Your task to perform on an android device: change text size in settings app Image 0: 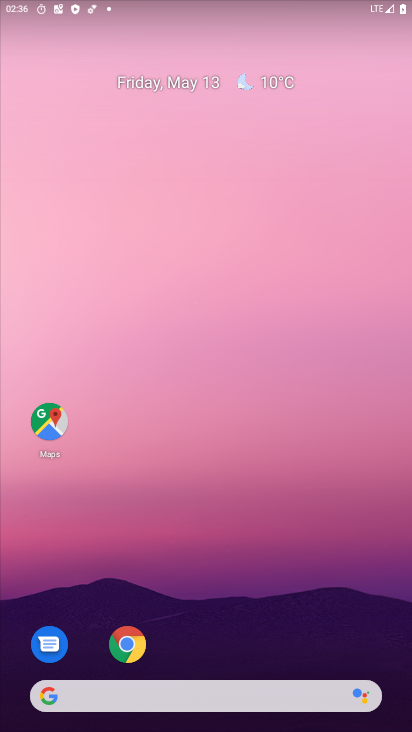
Step 0: drag from (236, 662) to (255, 0)
Your task to perform on an android device: change text size in settings app Image 1: 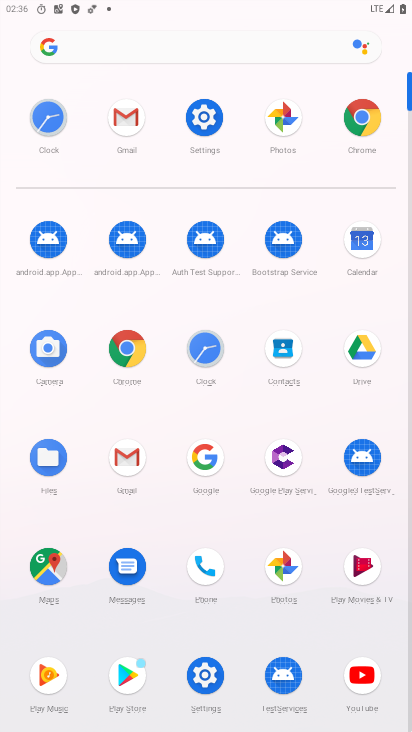
Step 1: click (204, 122)
Your task to perform on an android device: change text size in settings app Image 2: 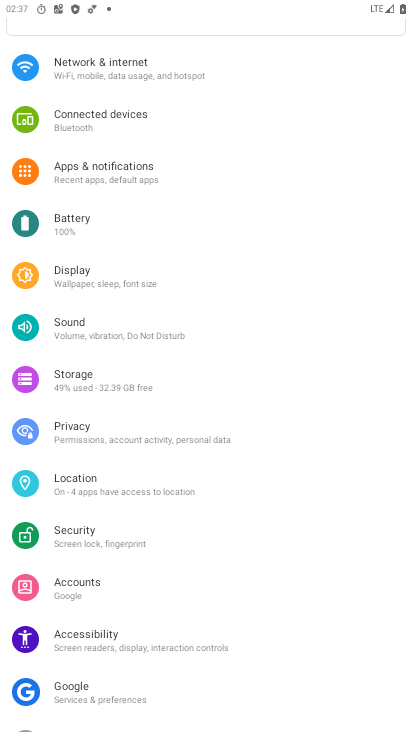
Step 2: click (95, 535)
Your task to perform on an android device: change text size in settings app Image 3: 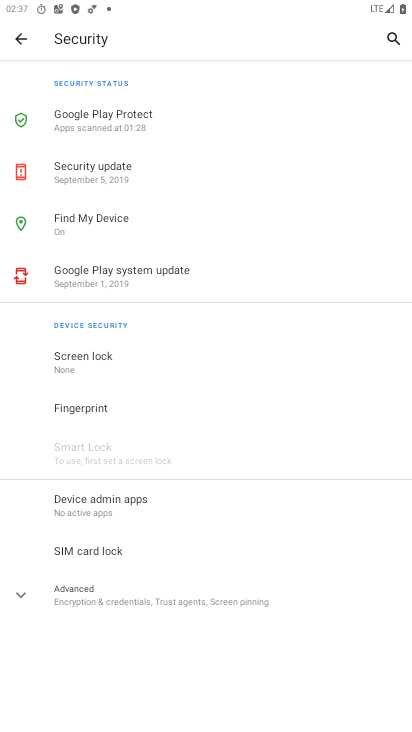
Step 3: drag from (184, 154) to (161, 450)
Your task to perform on an android device: change text size in settings app Image 4: 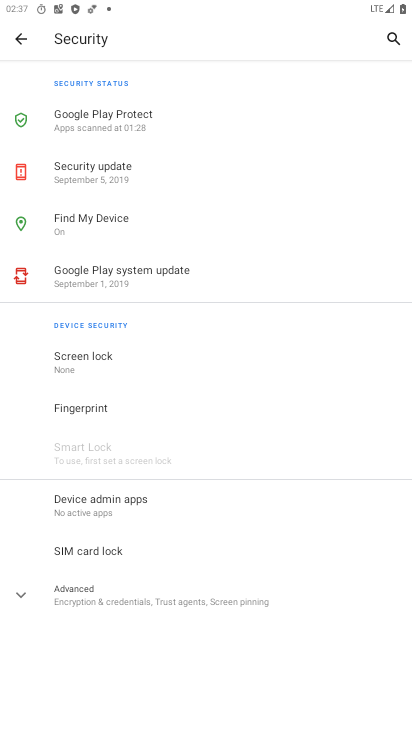
Step 4: press back button
Your task to perform on an android device: change text size in settings app Image 5: 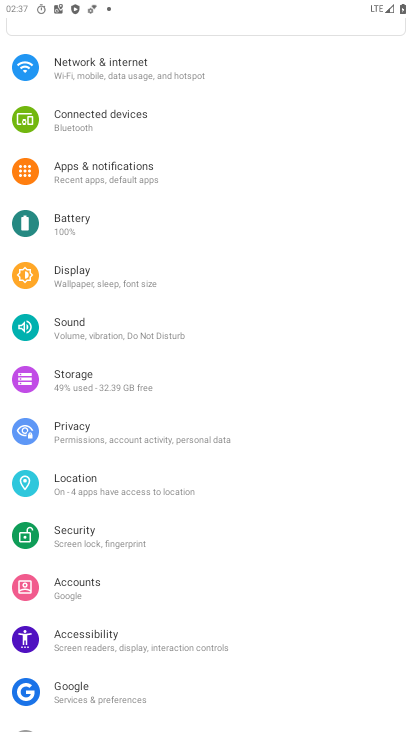
Step 5: drag from (226, 675) to (248, 381)
Your task to perform on an android device: change text size in settings app Image 6: 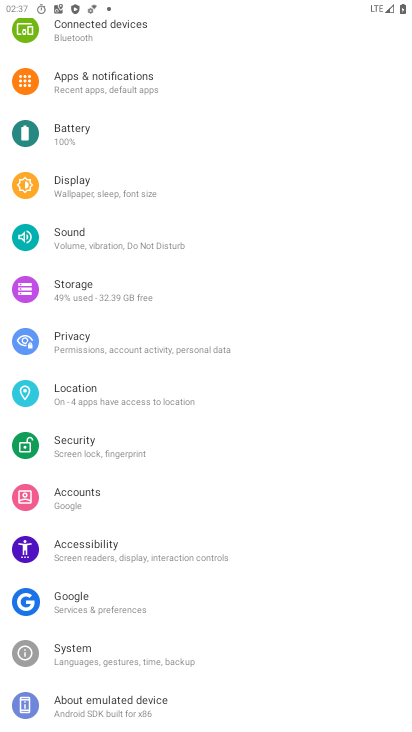
Step 6: click (128, 551)
Your task to perform on an android device: change text size in settings app Image 7: 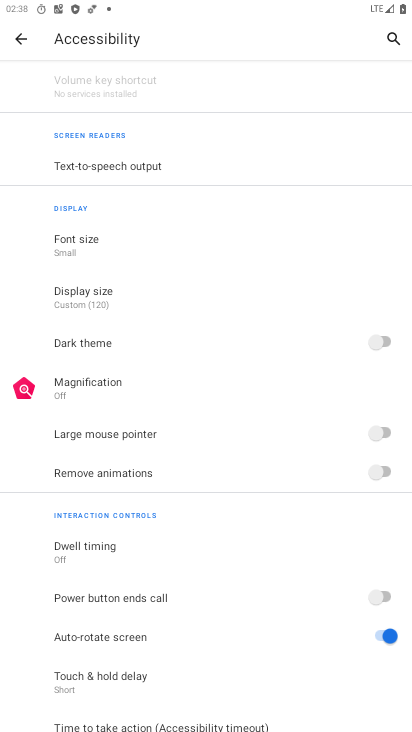
Step 7: click (78, 244)
Your task to perform on an android device: change text size in settings app Image 8: 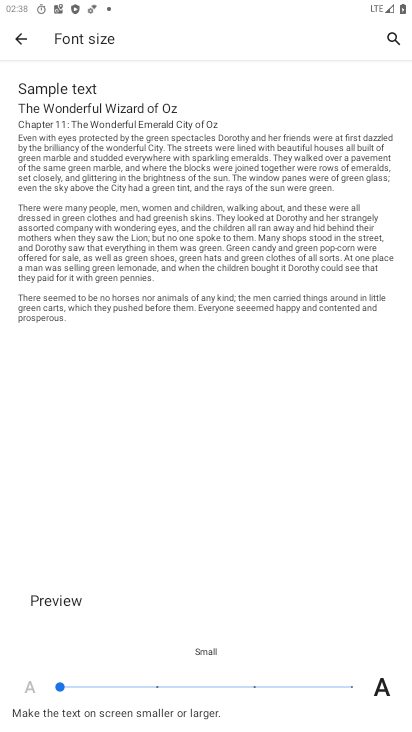
Step 8: click (118, 684)
Your task to perform on an android device: change text size in settings app Image 9: 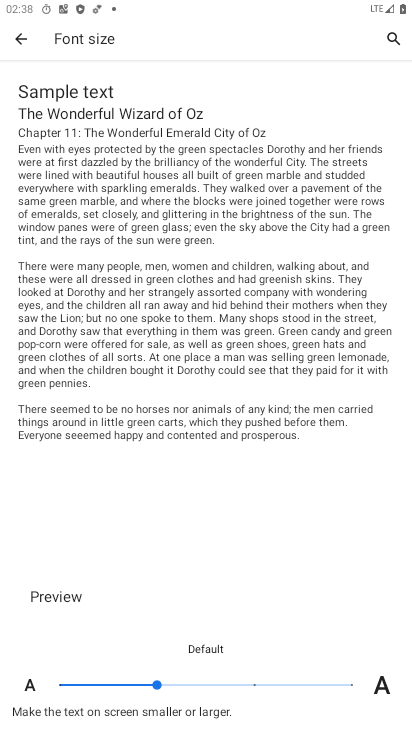
Step 9: task complete